Your task to perform on an android device: Open settings on Google Maps Image 0: 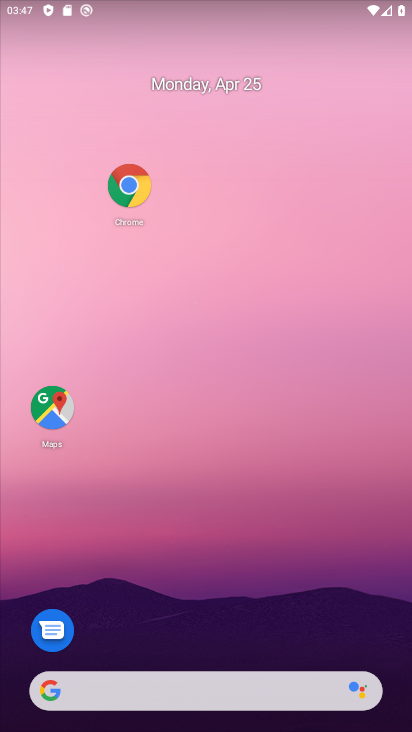
Step 0: click (49, 407)
Your task to perform on an android device: Open settings on Google Maps Image 1: 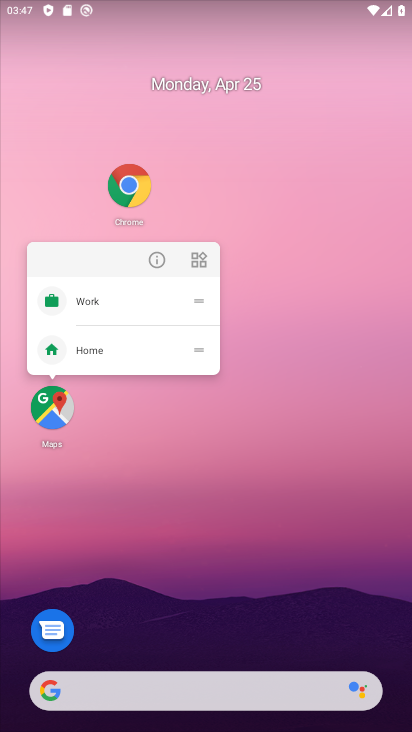
Step 1: click (159, 262)
Your task to perform on an android device: Open settings on Google Maps Image 2: 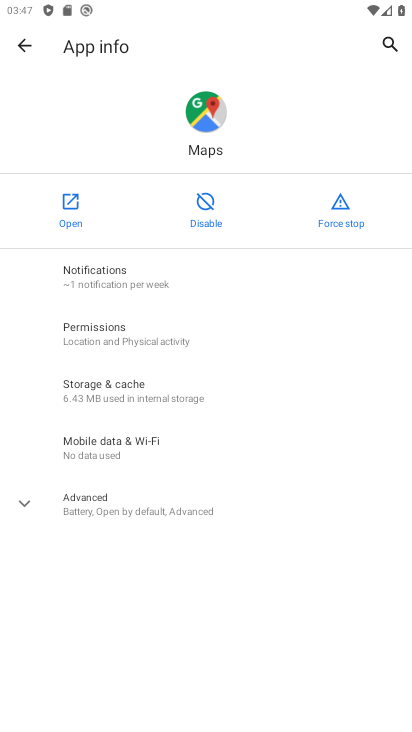
Step 2: click (72, 212)
Your task to perform on an android device: Open settings on Google Maps Image 3: 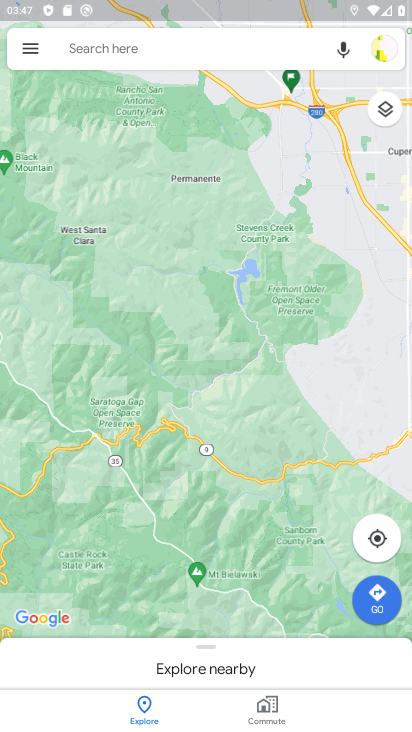
Step 3: click (32, 53)
Your task to perform on an android device: Open settings on Google Maps Image 4: 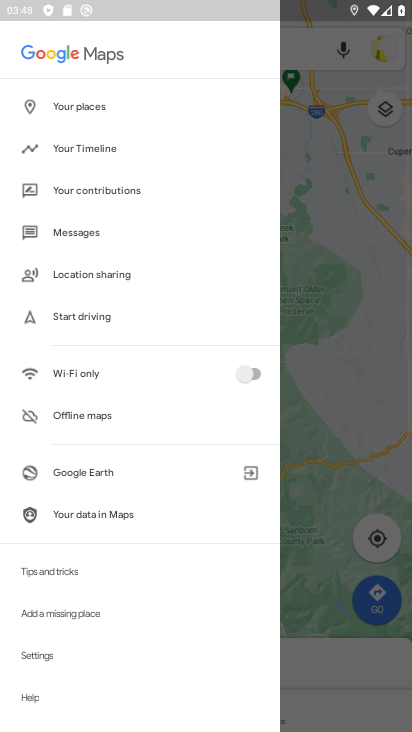
Step 4: click (41, 656)
Your task to perform on an android device: Open settings on Google Maps Image 5: 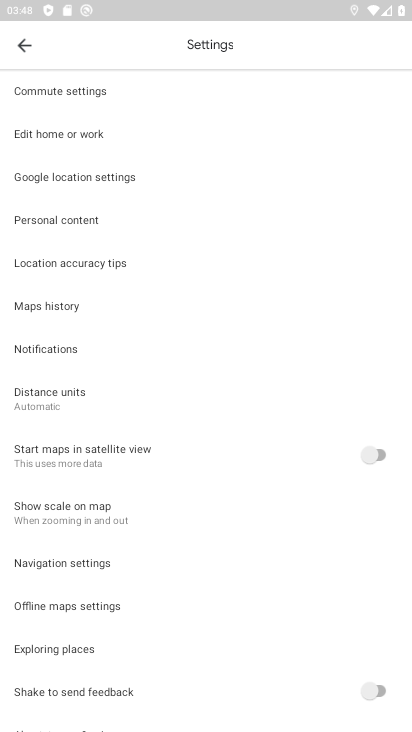
Step 5: task complete